Your task to perform on an android device: Go to display settings Image 0: 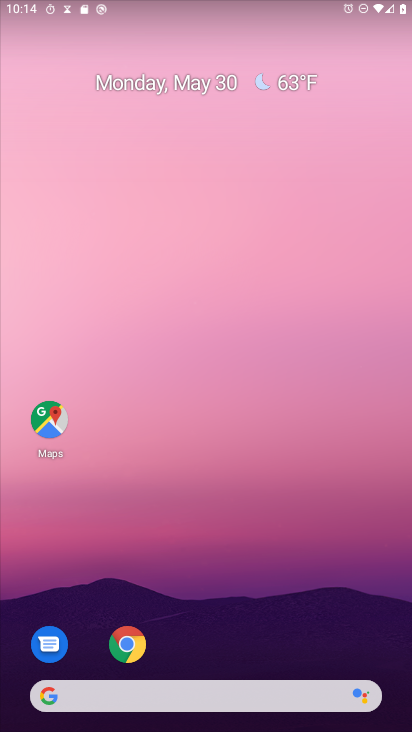
Step 0: drag from (202, 631) to (255, 45)
Your task to perform on an android device: Go to display settings Image 1: 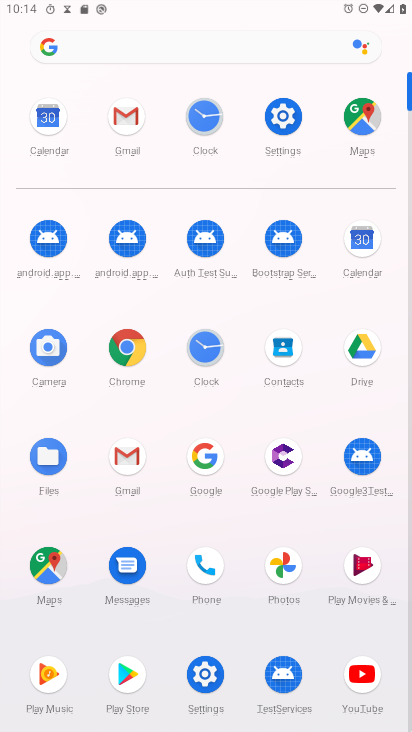
Step 1: click (285, 124)
Your task to perform on an android device: Go to display settings Image 2: 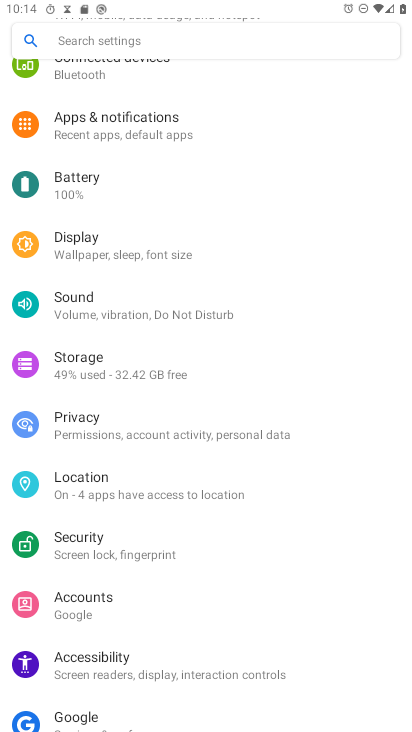
Step 2: click (131, 258)
Your task to perform on an android device: Go to display settings Image 3: 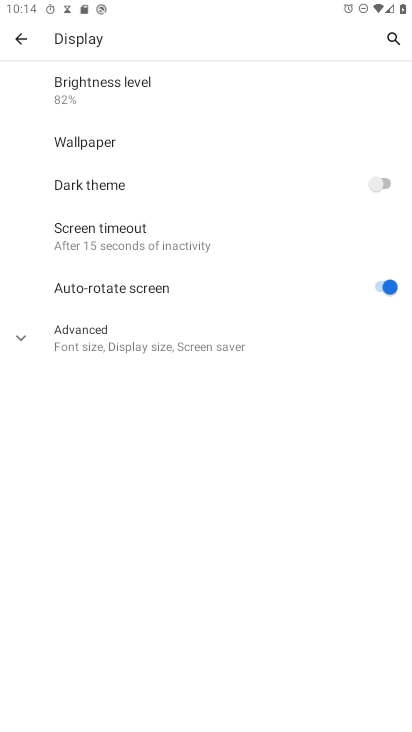
Step 3: task complete